Your task to perform on an android device: Open eBay Image 0: 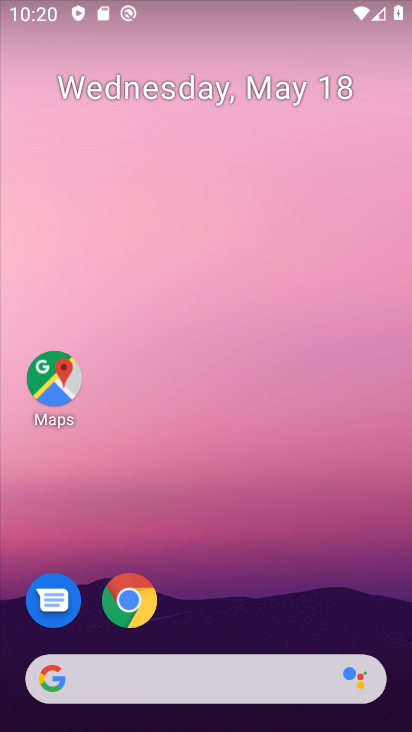
Step 0: click (149, 592)
Your task to perform on an android device: Open eBay Image 1: 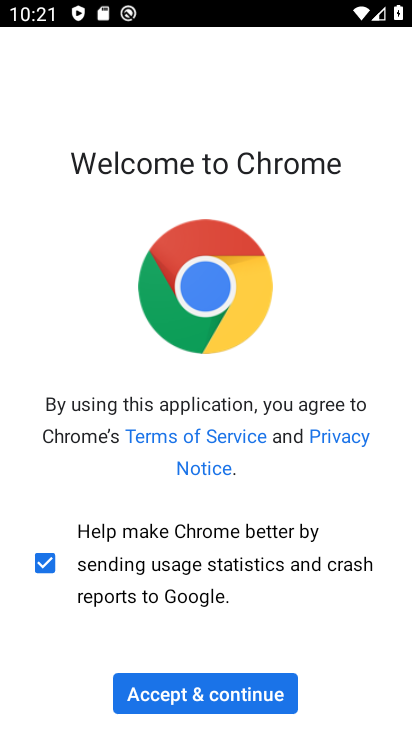
Step 1: click (242, 696)
Your task to perform on an android device: Open eBay Image 2: 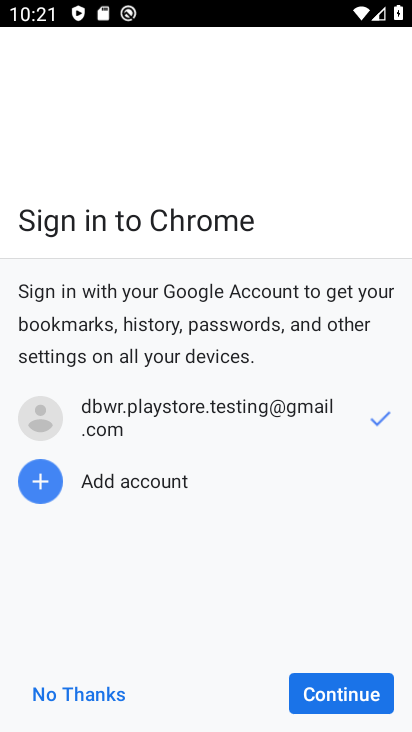
Step 2: click (327, 684)
Your task to perform on an android device: Open eBay Image 3: 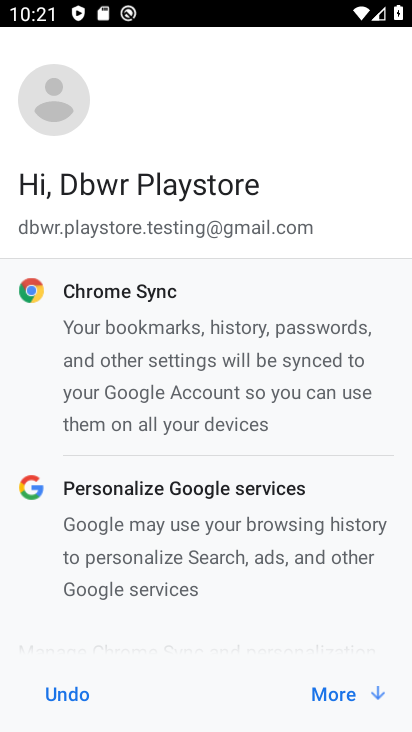
Step 3: click (327, 684)
Your task to perform on an android device: Open eBay Image 4: 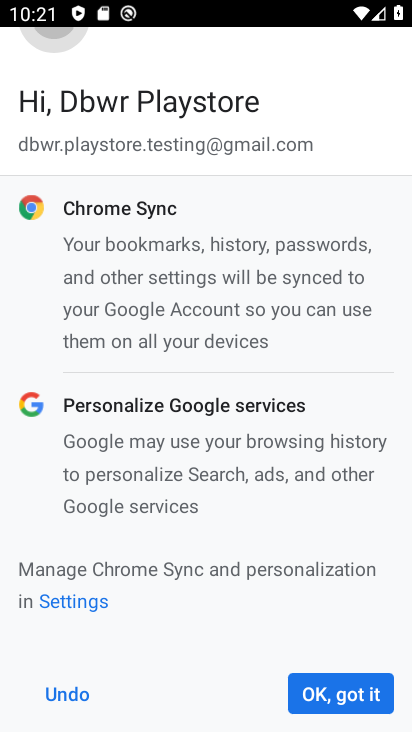
Step 4: click (325, 684)
Your task to perform on an android device: Open eBay Image 5: 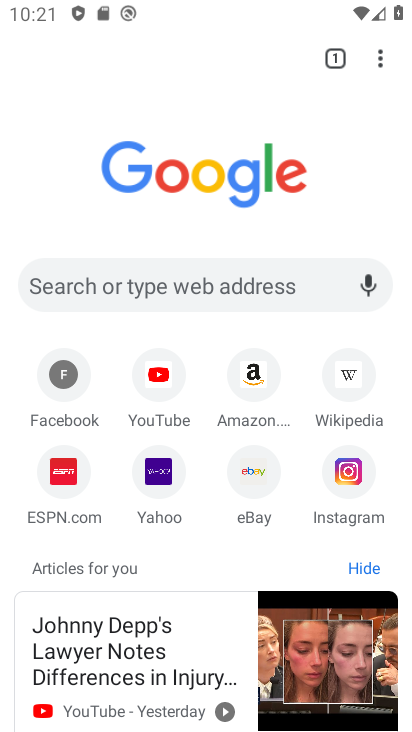
Step 5: click (244, 468)
Your task to perform on an android device: Open eBay Image 6: 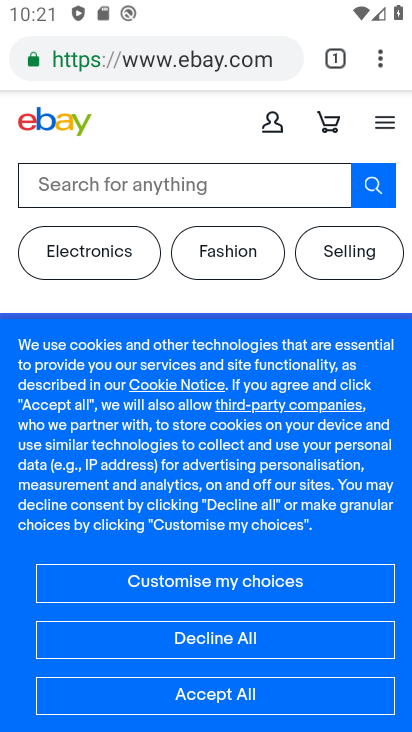
Step 6: task complete